Your task to perform on an android device: turn pop-ups off in chrome Image 0: 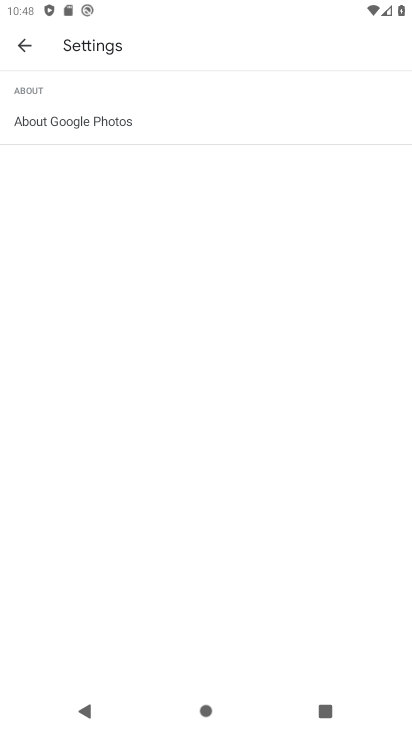
Step 0: press home button
Your task to perform on an android device: turn pop-ups off in chrome Image 1: 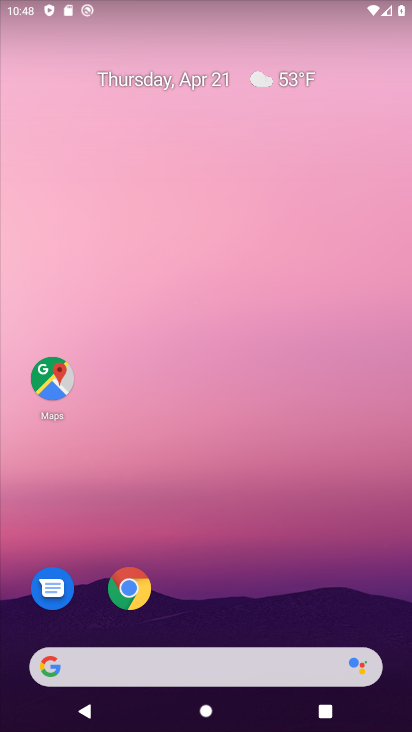
Step 1: click (147, 590)
Your task to perform on an android device: turn pop-ups off in chrome Image 2: 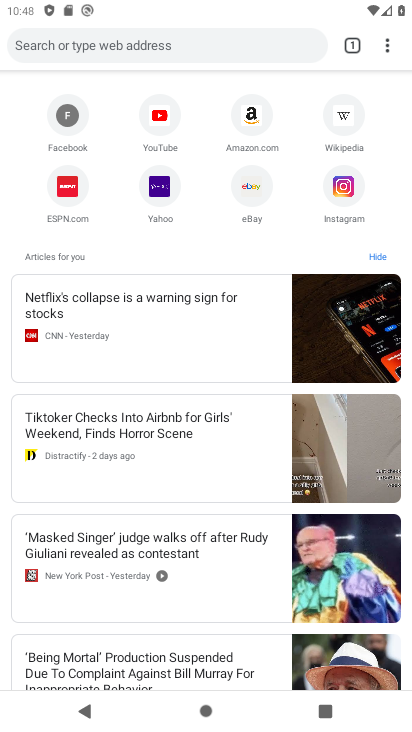
Step 2: click (389, 50)
Your task to perform on an android device: turn pop-ups off in chrome Image 3: 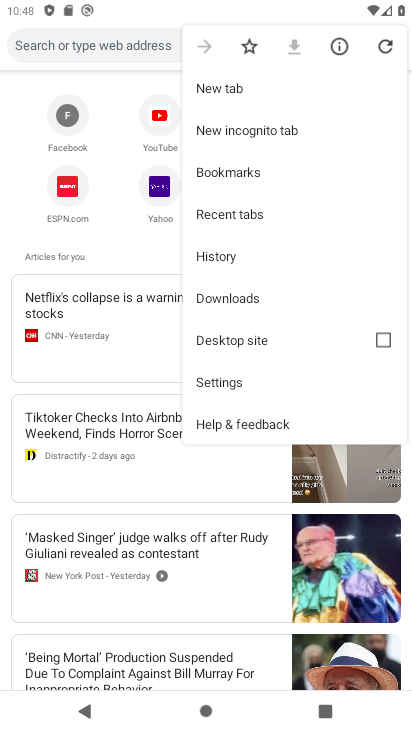
Step 3: click (224, 386)
Your task to perform on an android device: turn pop-ups off in chrome Image 4: 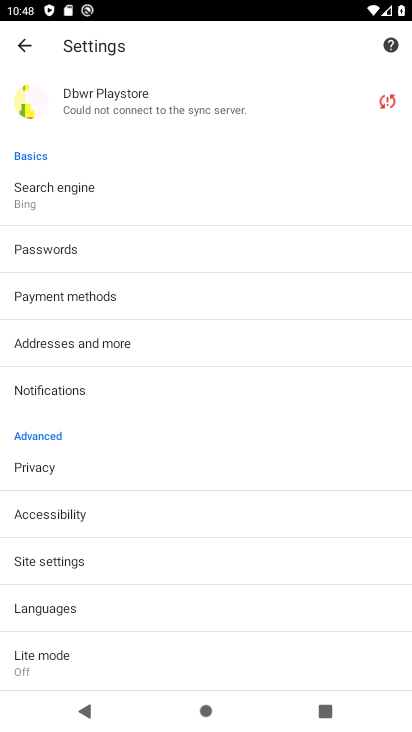
Step 4: drag from (184, 583) to (165, 368)
Your task to perform on an android device: turn pop-ups off in chrome Image 5: 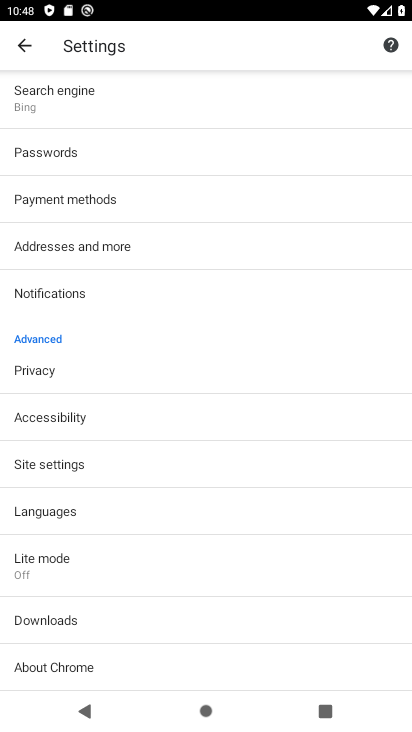
Step 5: click (92, 519)
Your task to perform on an android device: turn pop-ups off in chrome Image 6: 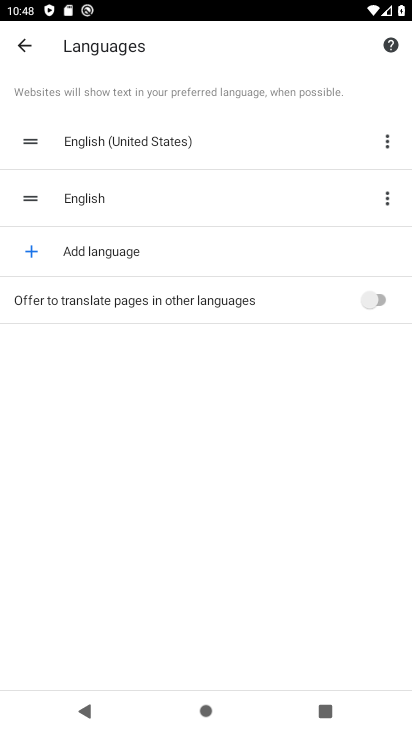
Step 6: click (21, 49)
Your task to perform on an android device: turn pop-ups off in chrome Image 7: 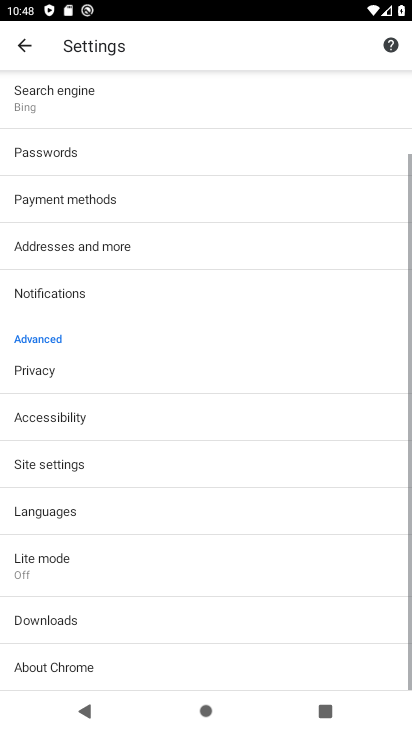
Step 7: click (90, 469)
Your task to perform on an android device: turn pop-ups off in chrome Image 8: 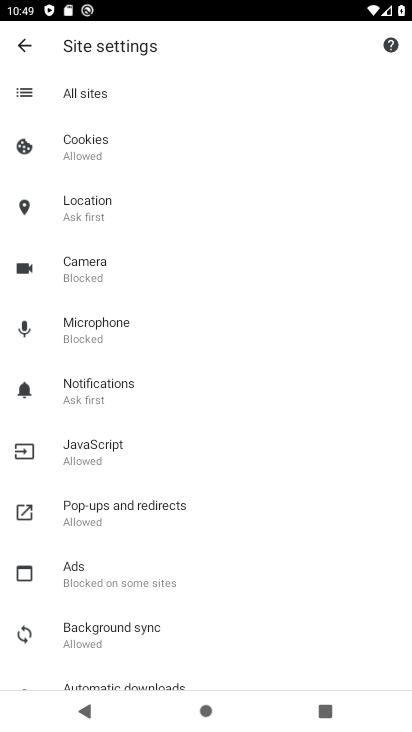
Step 8: click (125, 507)
Your task to perform on an android device: turn pop-ups off in chrome Image 9: 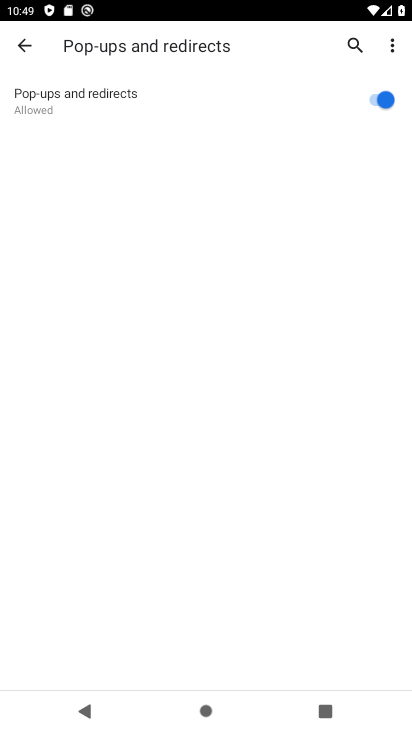
Step 9: click (382, 99)
Your task to perform on an android device: turn pop-ups off in chrome Image 10: 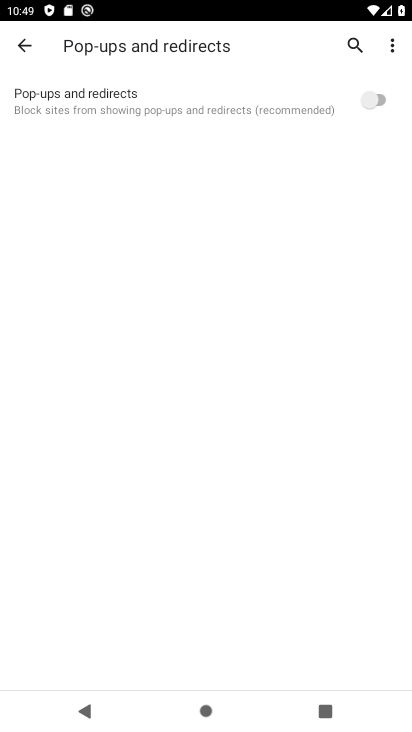
Step 10: task complete